Your task to perform on an android device: What's the weather going to be this weekend? Image 0: 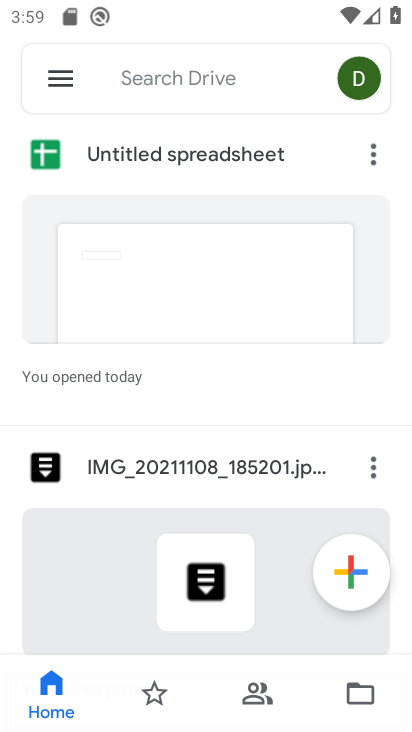
Step 0: press home button
Your task to perform on an android device: What's the weather going to be this weekend? Image 1: 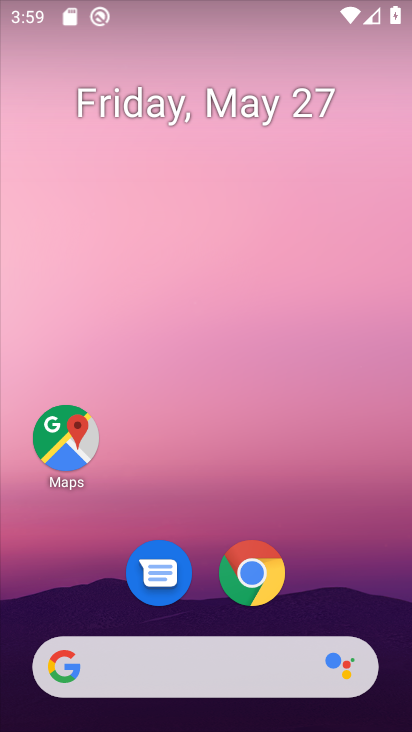
Step 1: click (250, 663)
Your task to perform on an android device: What's the weather going to be this weekend? Image 2: 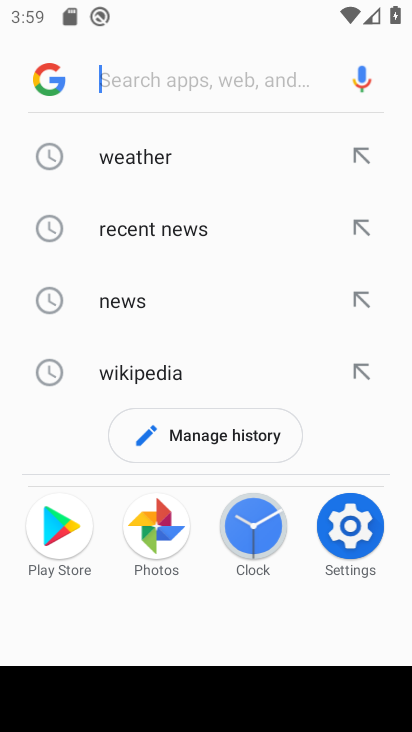
Step 2: click (120, 164)
Your task to perform on an android device: What's the weather going to be this weekend? Image 3: 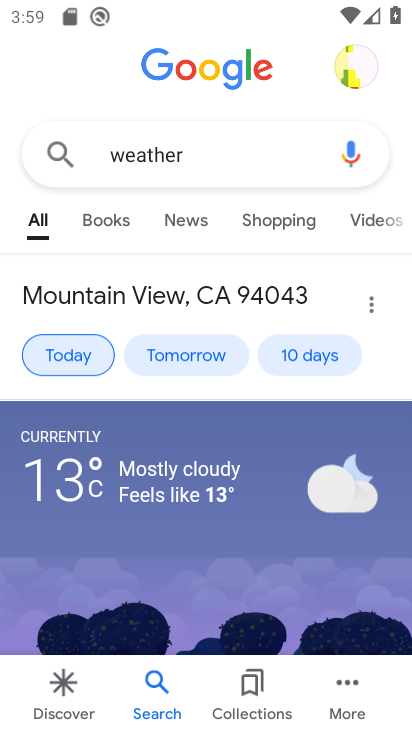
Step 3: click (84, 351)
Your task to perform on an android device: What's the weather going to be this weekend? Image 4: 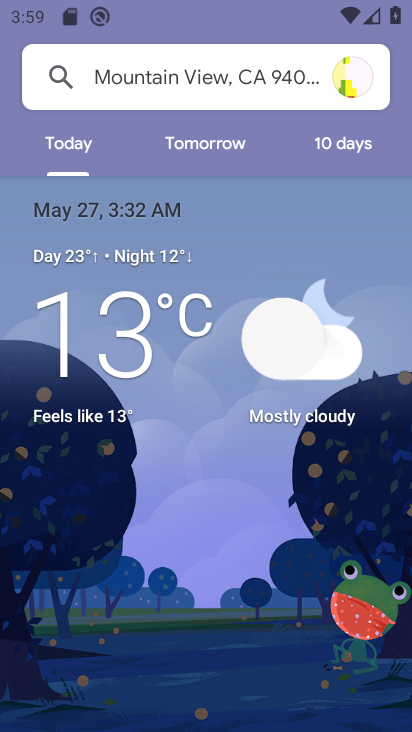
Step 4: click (212, 135)
Your task to perform on an android device: What's the weather going to be this weekend? Image 5: 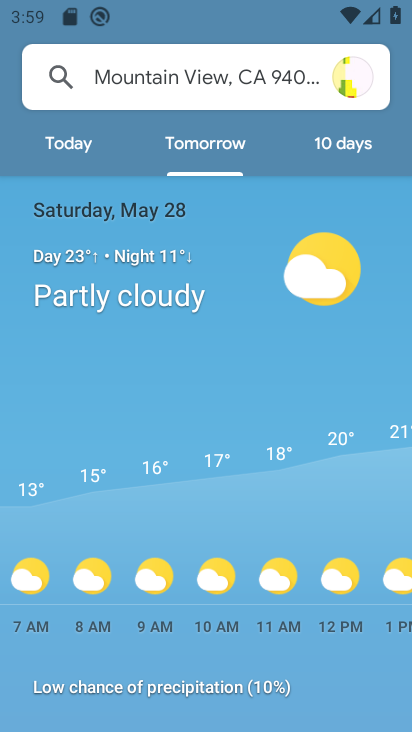
Step 5: task complete